Your task to perform on an android device: change notification settings in the gmail app Image 0: 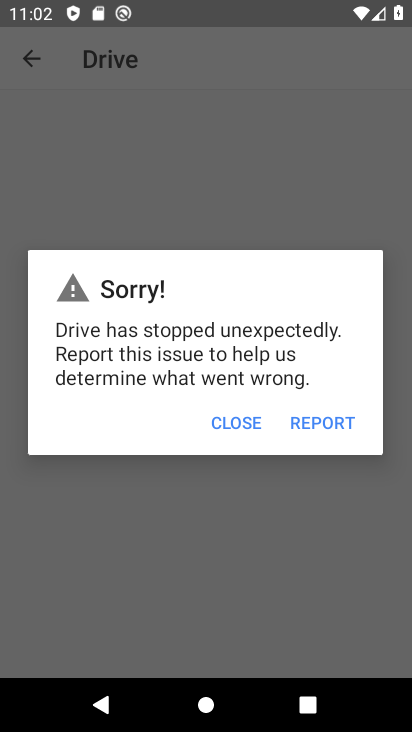
Step 0: press home button
Your task to perform on an android device: change notification settings in the gmail app Image 1: 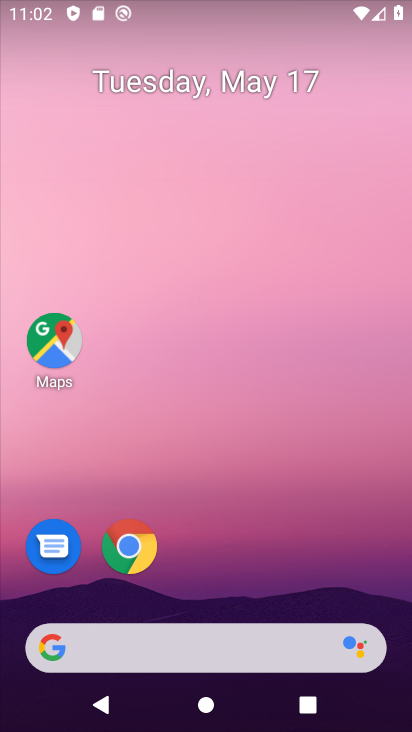
Step 1: drag from (255, 582) to (223, 106)
Your task to perform on an android device: change notification settings in the gmail app Image 2: 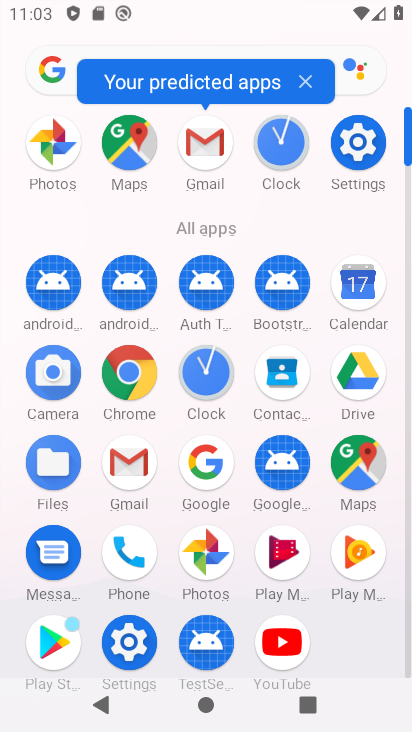
Step 2: click (205, 158)
Your task to perform on an android device: change notification settings in the gmail app Image 3: 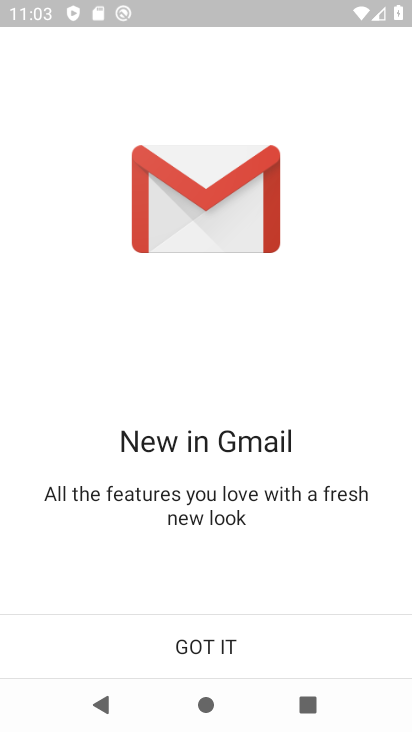
Step 3: click (230, 640)
Your task to perform on an android device: change notification settings in the gmail app Image 4: 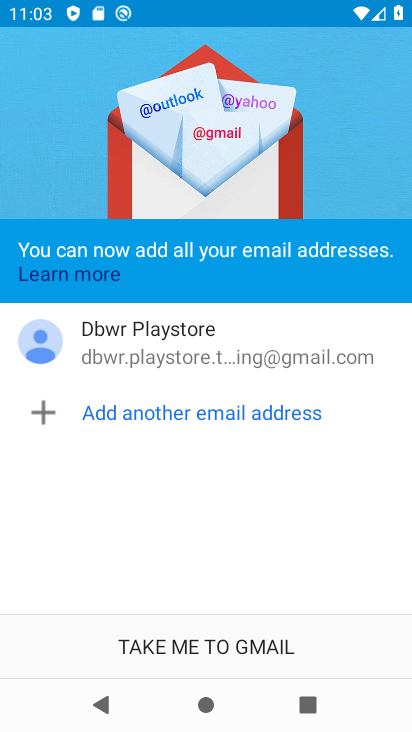
Step 4: click (233, 641)
Your task to perform on an android device: change notification settings in the gmail app Image 5: 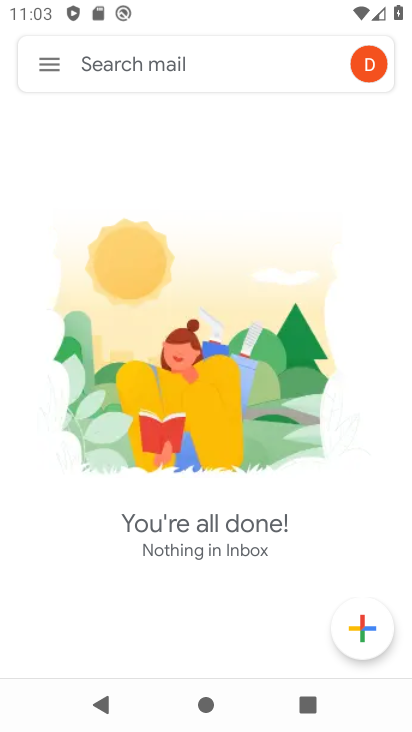
Step 5: click (45, 58)
Your task to perform on an android device: change notification settings in the gmail app Image 6: 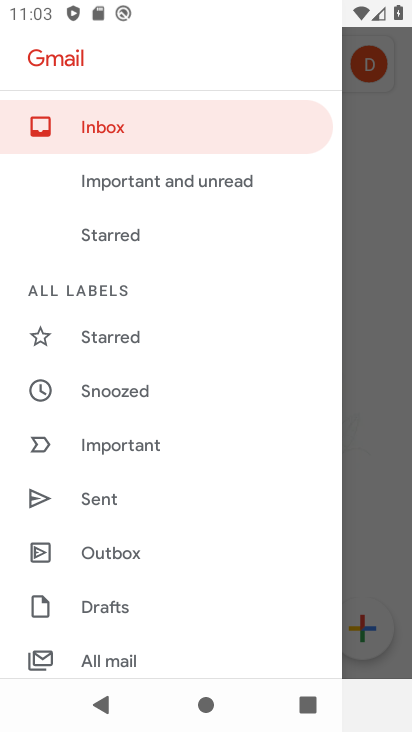
Step 6: drag from (215, 645) to (207, 215)
Your task to perform on an android device: change notification settings in the gmail app Image 7: 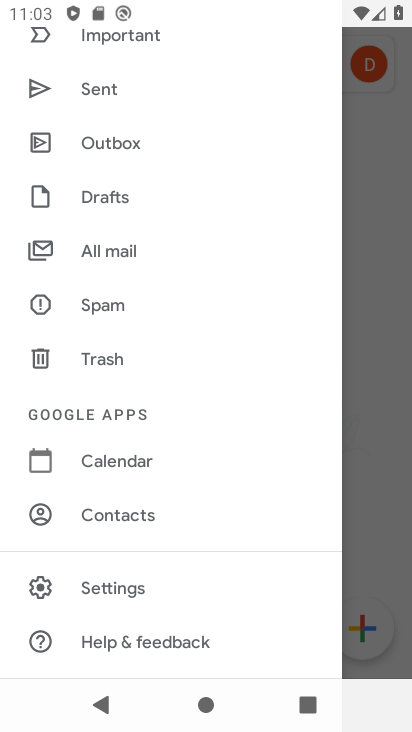
Step 7: click (193, 583)
Your task to perform on an android device: change notification settings in the gmail app Image 8: 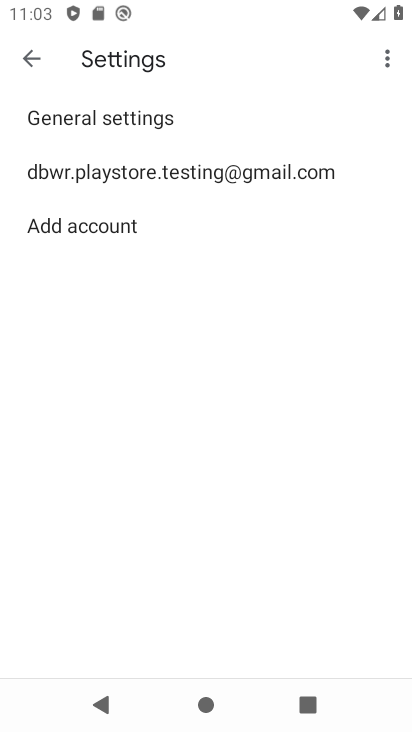
Step 8: click (251, 189)
Your task to perform on an android device: change notification settings in the gmail app Image 9: 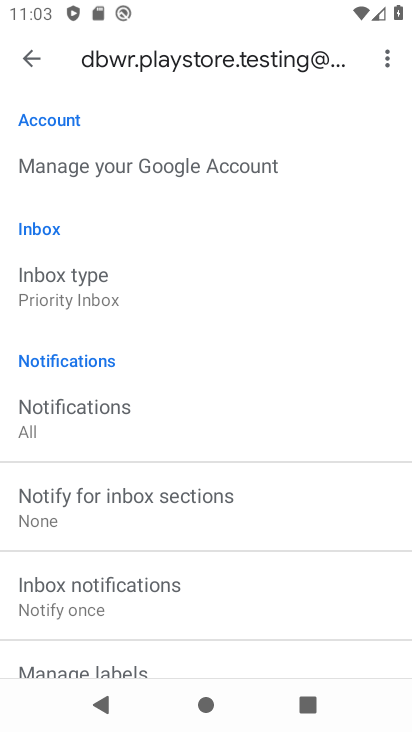
Step 9: drag from (200, 632) to (182, 221)
Your task to perform on an android device: change notification settings in the gmail app Image 10: 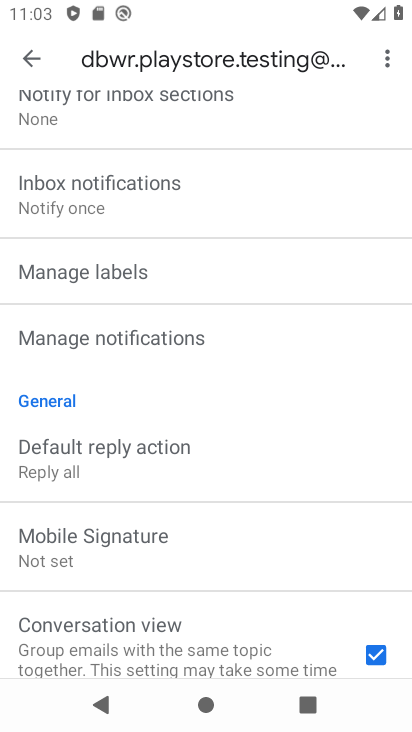
Step 10: click (227, 353)
Your task to perform on an android device: change notification settings in the gmail app Image 11: 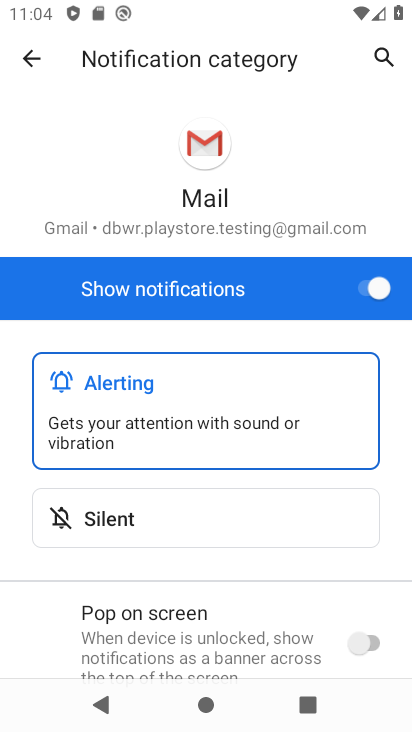
Step 11: drag from (298, 573) to (289, 363)
Your task to perform on an android device: change notification settings in the gmail app Image 12: 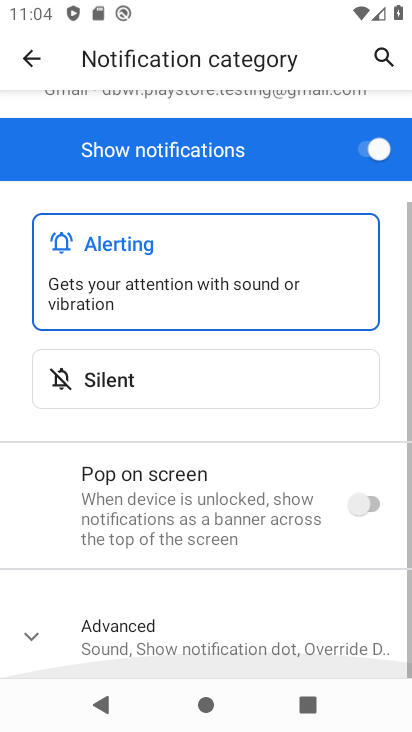
Step 12: click (289, 363)
Your task to perform on an android device: change notification settings in the gmail app Image 13: 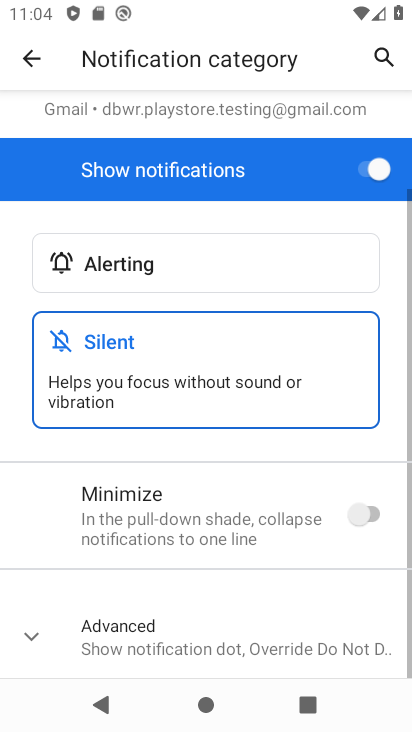
Step 13: click (382, 497)
Your task to perform on an android device: change notification settings in the gmail app Image 14: 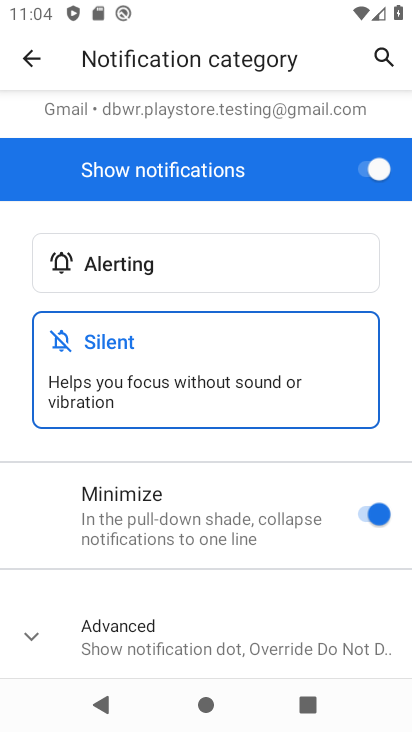
Step 14: task complete